Your task to perform on an android device: What's on my calendar tomorrow? Image 0: 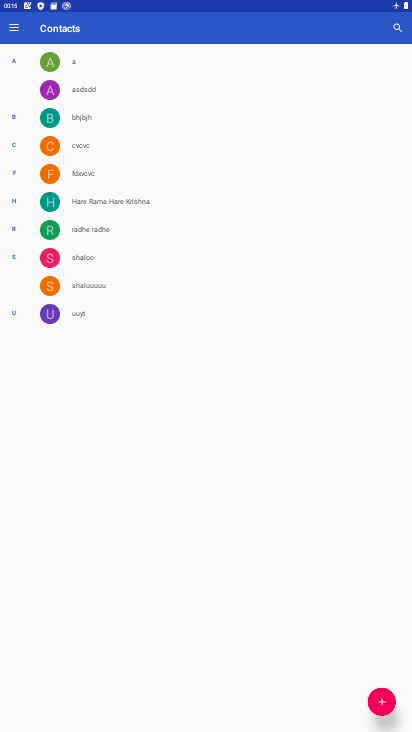
Step 0: press home button
Your task to perform on an android device: What's on my calendar tomorrow? Image 1: 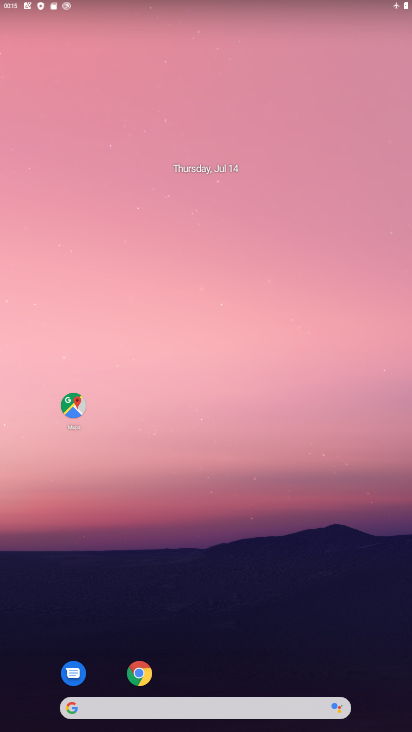
Step 1: drag from (220, 663) to (272, 168)
Your task to perform on an android device: What's on my calendar tomorrow? Image 2: 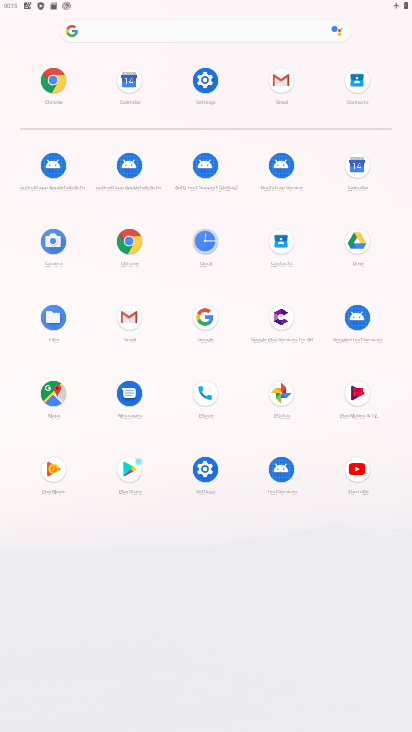
Step 2: click (367, 183)
Your task to perform on an android device: What's on my calendar tomorrow? Image 3: 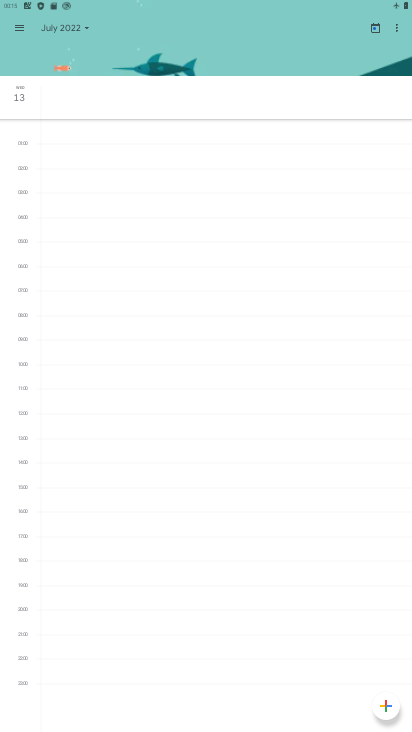
Step 3: click (88, 27)
Your task to perform on an android device: What's on my calendar tomorrow? Image 4: 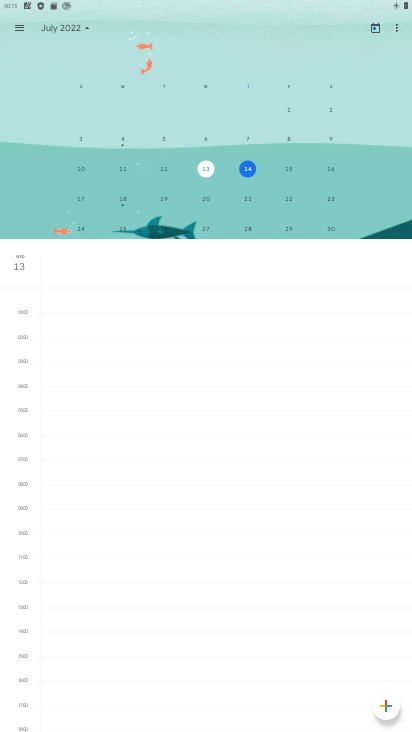
Step 4: click (254, 172)
Your task to perform on an android device: What's on my calendar tomorrow? Image 5: 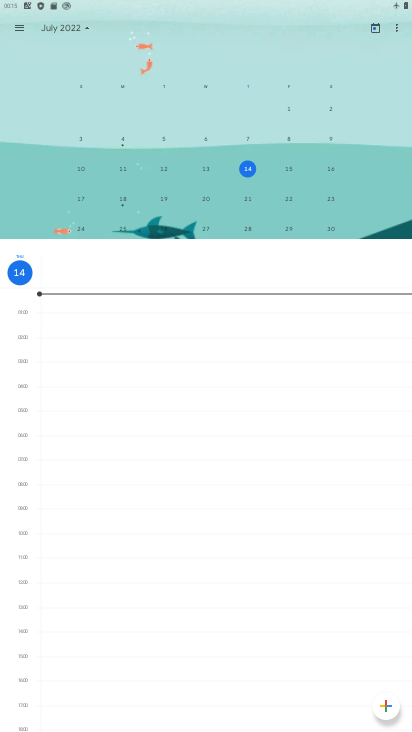
Step 5: task complete